Your task to perform on an android device: turn on airplane mode Image 0: 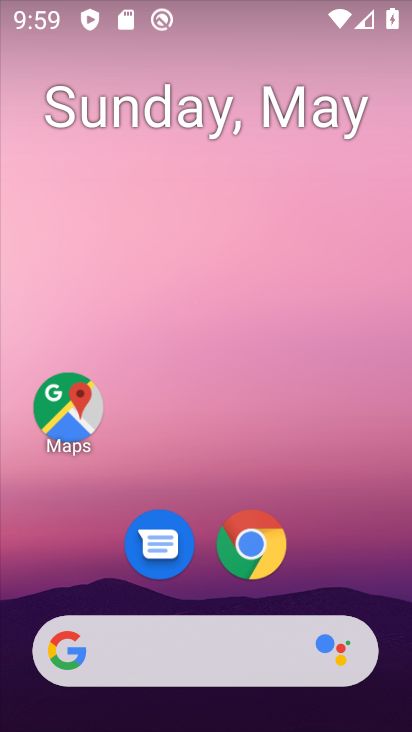
Step 0: drag from (306, 585) to (297, 298)
Your task to perform on an android device: turn on airplane mode Image 1: 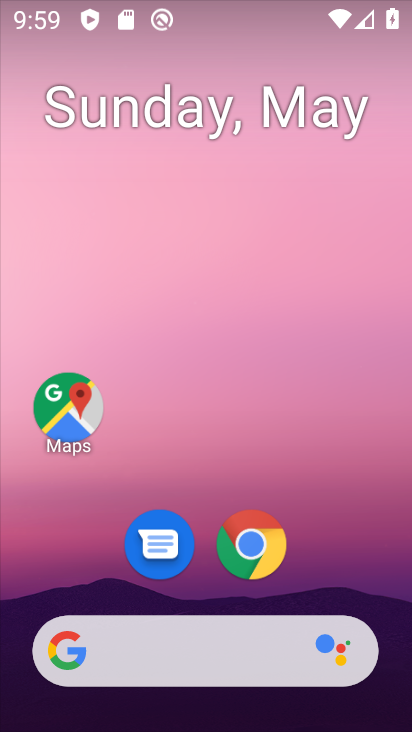
Step 1: drag from (304, 577) to (286, 239)
Your task to perform on an android device: turn on airplane mode Image 2: 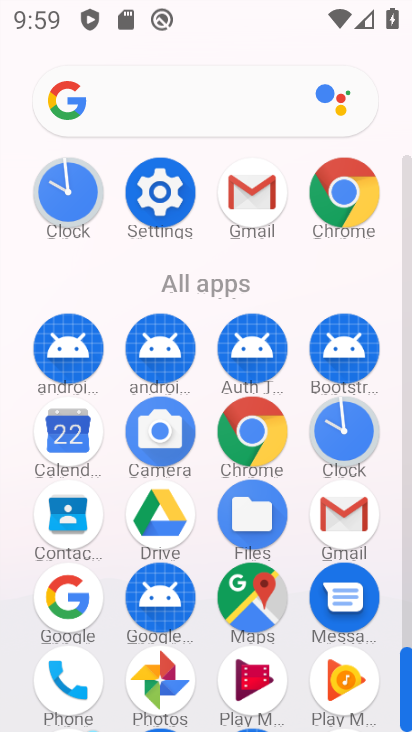
Step 2: click (155, 191)
Your task to perform on an android device: turn on airplane mode Image 3: 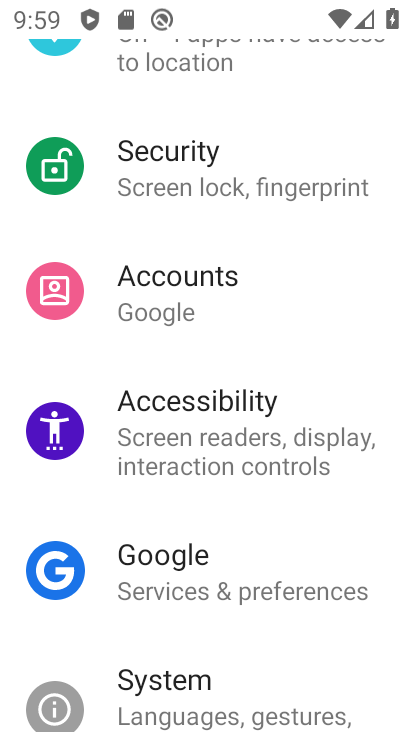
Step 3: drag from (275, 180) to (249, 649)
Your task to perform on an android device: turn on airplane mode Image 4: 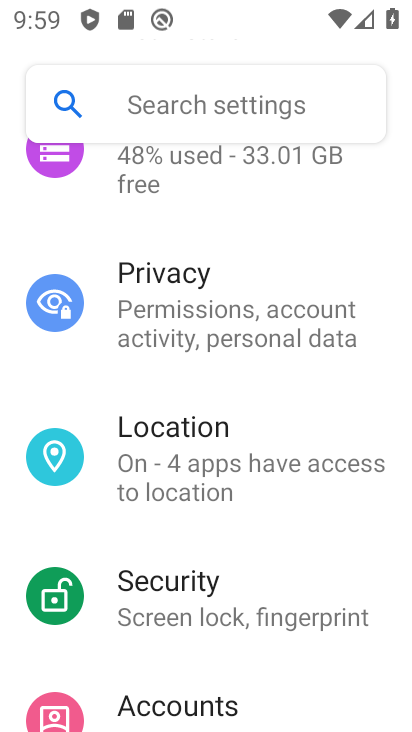
Step 4: drag from (218, 267) to (244, 693)
Your task to perform on an android device: turn on airplane mode Image 5: 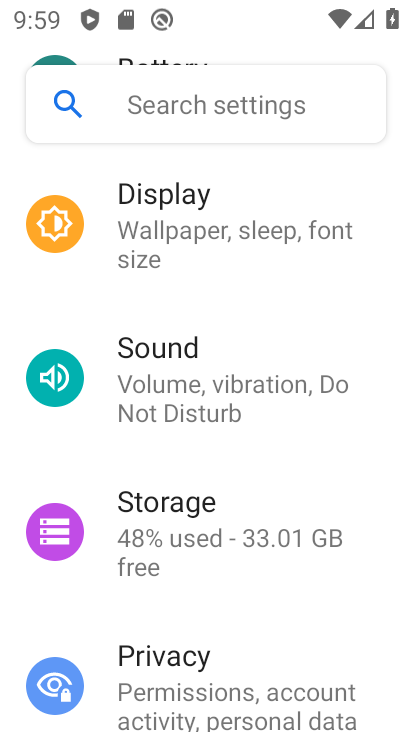
Step 5: drag from (218, 198) to (231, 657)
Your task to perform on an android device: turn on airplane mode Image 6: 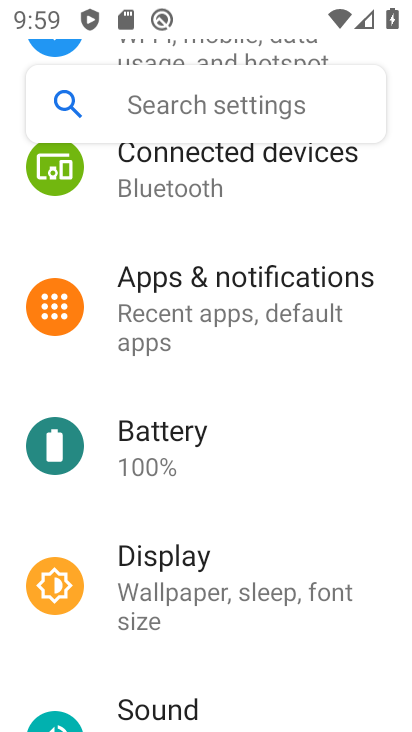
Step 6: drag from (200, 172) to (215, 684)
Your task to perform on an android device: turn on airplane mode Image 7: 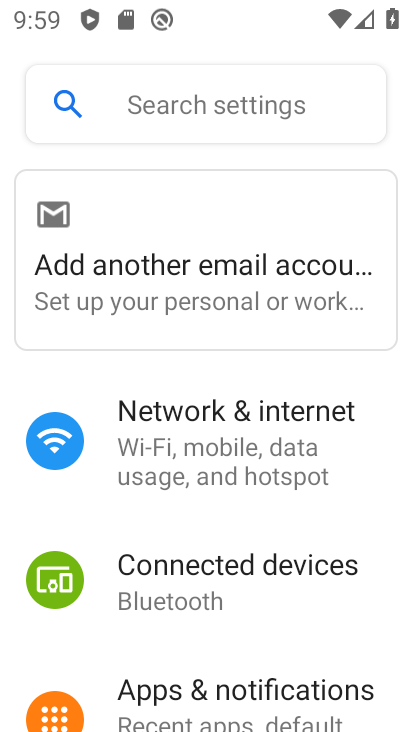
Step 7: click (196, 434)
Your task to perform on an android device: turn on airplane mode Image 8: 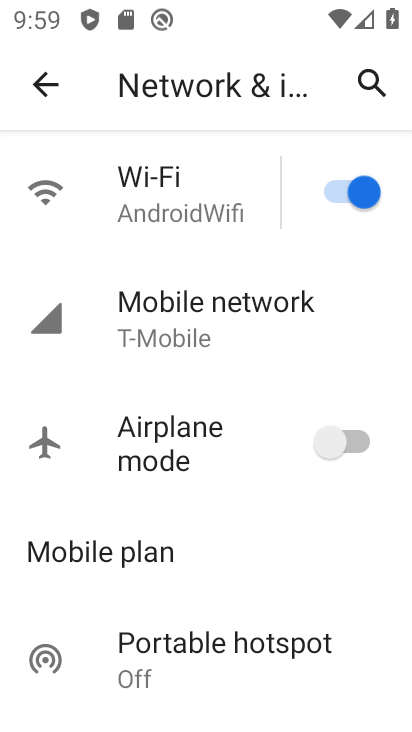
Step 8: click (325, 447)
Your task to perform on an android device: turn on airplane mode Image 9: 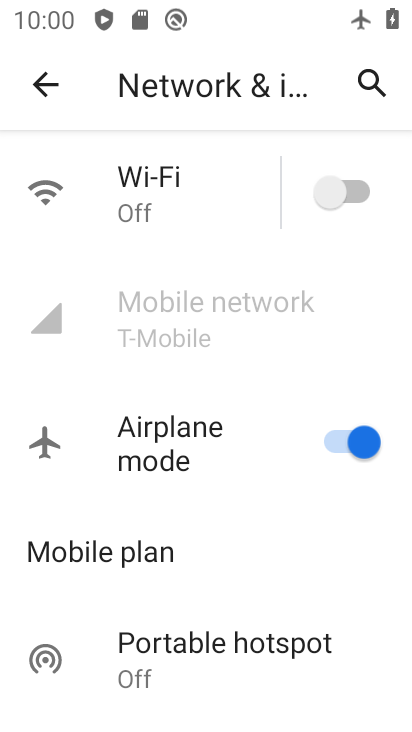
Step 9: task complete